Your task to perform on an android device: change the clock display to show seconds Image 0: 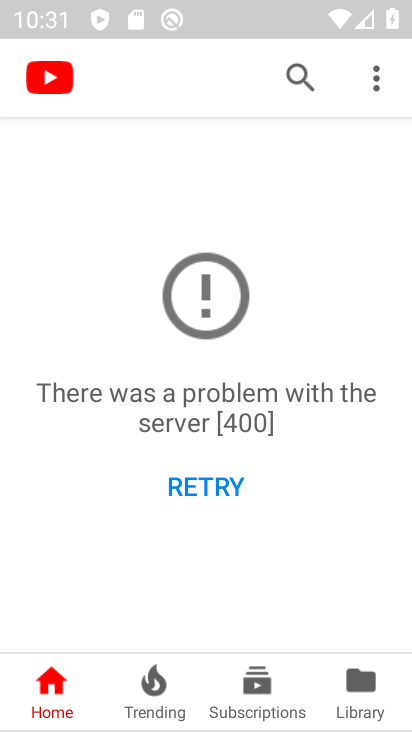
Step 0: press home button
Your task to perform on an android device: change the clock display to show seconds Image 1: 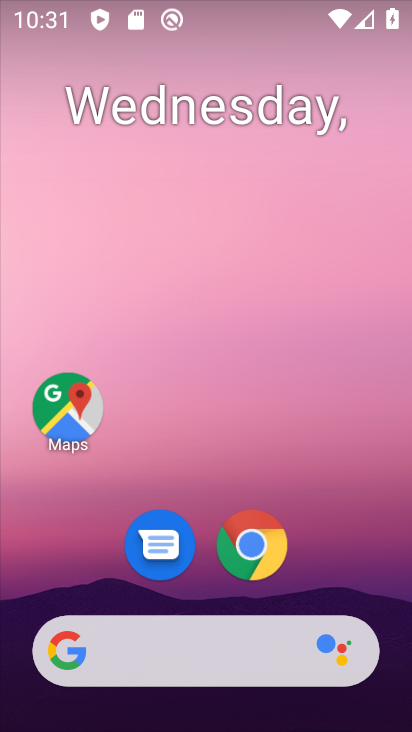
Step 1: drag from (173, 728) to (260, 203)
Your task to perform on an android device: change the clock display to show seconds Image 2: 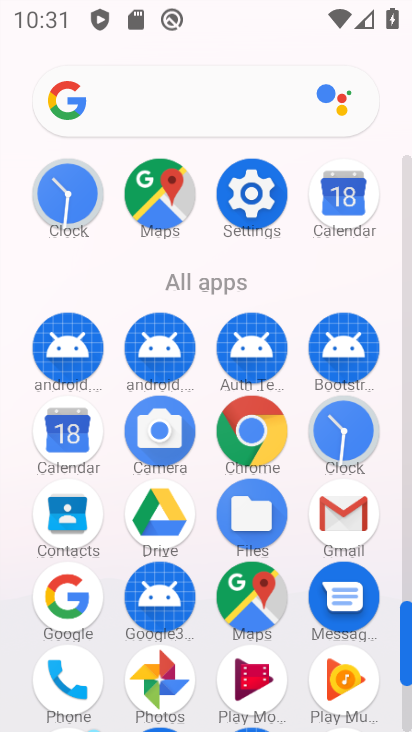
Step 2: click (77, 194)
Your task to perform on an android device: change the clock display to show seconds Image 3: 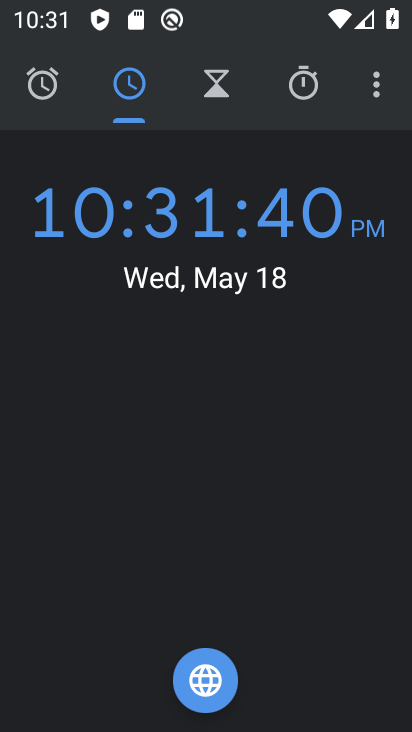
Step 3: click (376, 78)
Your task to perform on an android device: change the clock display to show seconds Image 4: 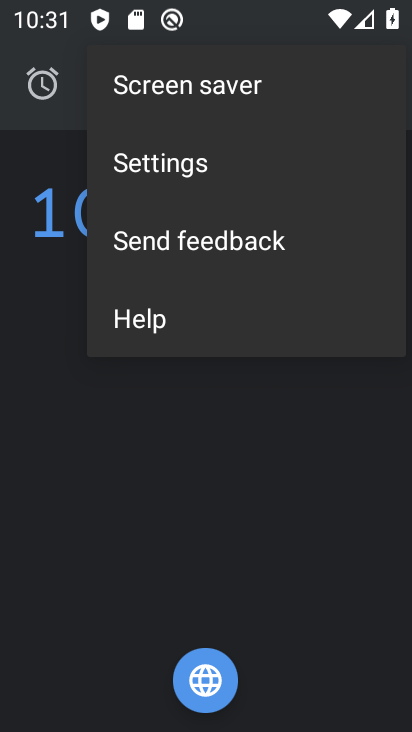
Step 4: click (221, 160)
Your task to perform on an android device: change the clock display to show seconds Image 5: 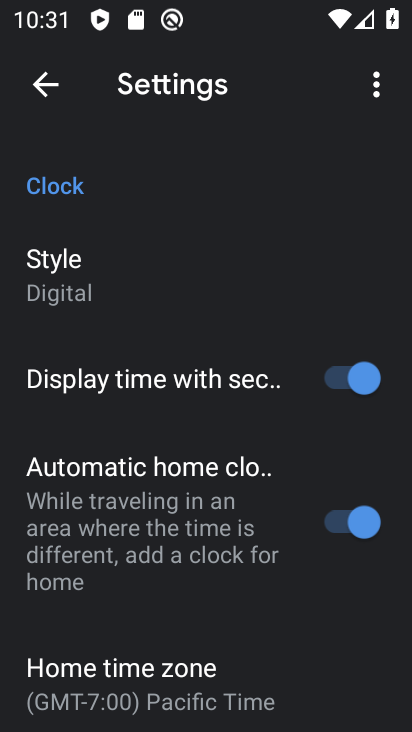
Step 5: task complete